Your task to perform on an android device: check google app version Image 0: 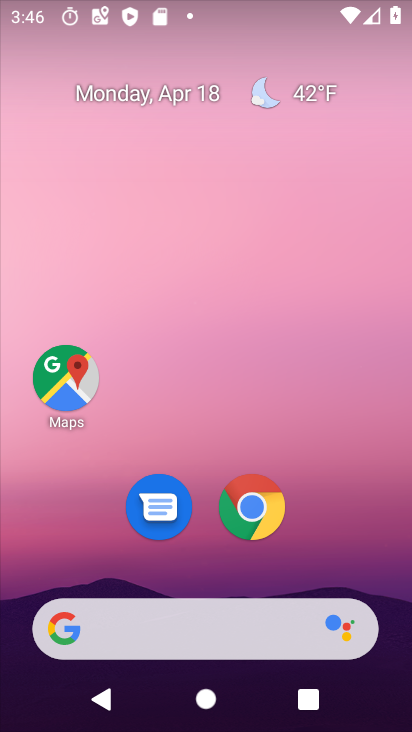
Step 0: drag from (341, 543) to (381, 5)
Your task to perform on an android device: check google app version Image 1: 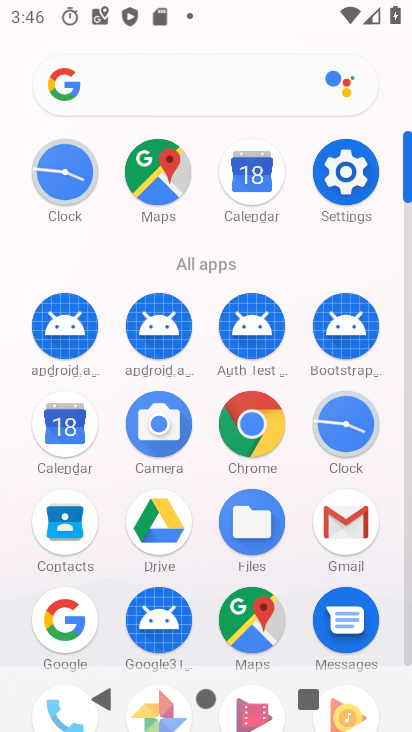
Step 1: click (72, 611)
Your task to perform on an android device: check google app version Image 2: 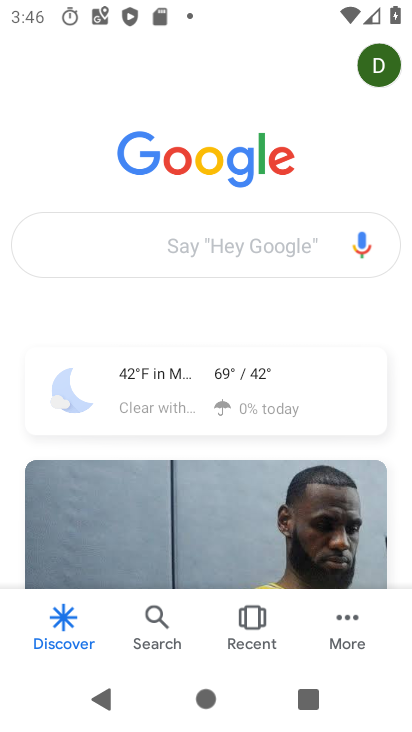
Step 2: click (356, 628)
Your task to perform on an android device: check google app version Image 3: 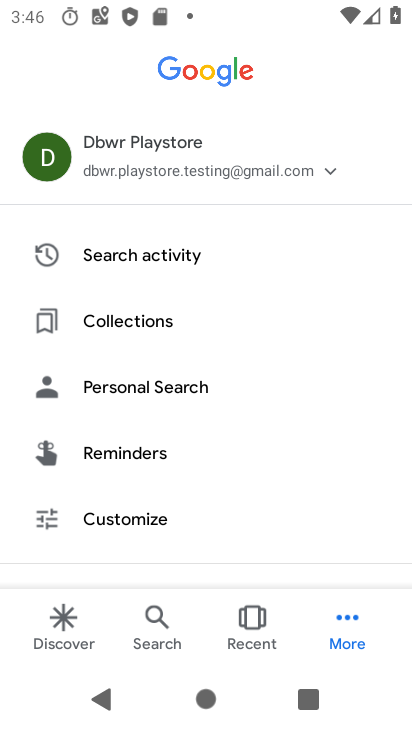
Step 3: drag from (265, 559) to (325, 365)
Your task to perform on an android device: check google app version Image 4: 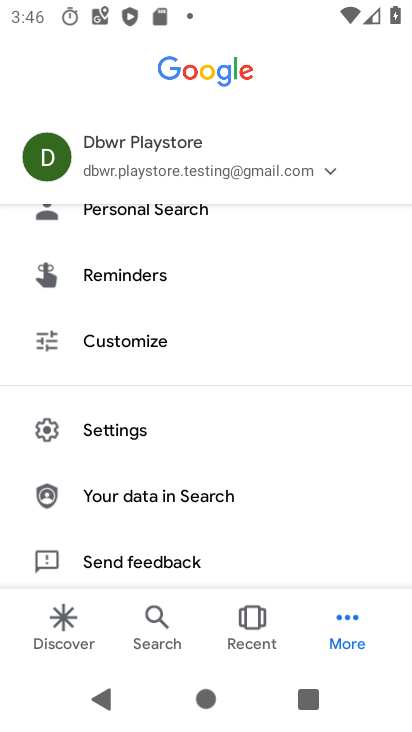
Step 4: click (250, 428)
Your task to perform on an android device: check google app version Image 5: 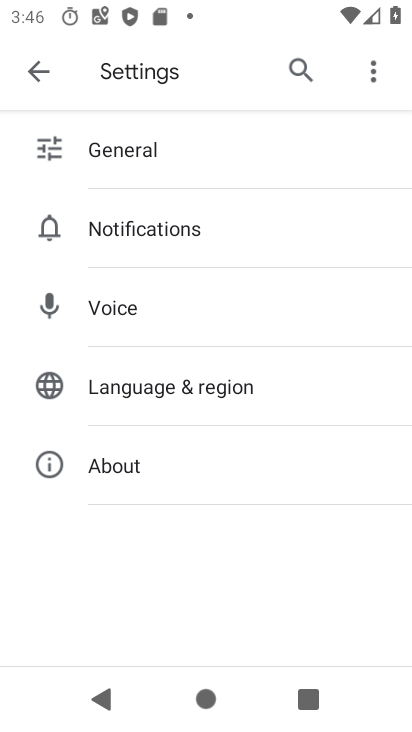
Step 5: click (244, 460)
Your task to perform on an android device: check google app version Image 6: 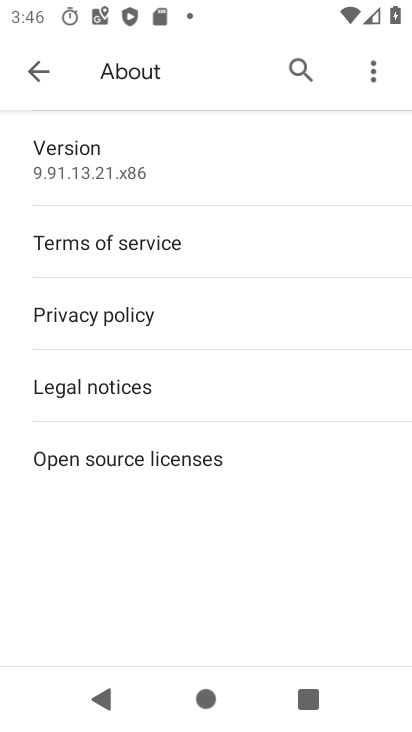
Step 6: click (292, 153)
Your task to perform on an android device: check google app version Image 7: 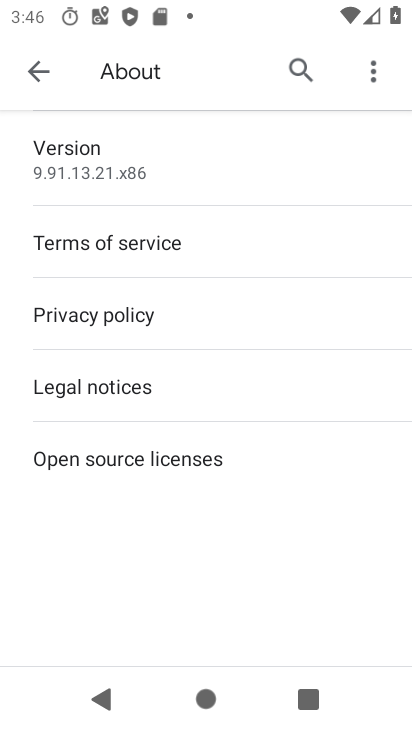
Step 7: task complete